Your task to perform on an android device: Search for "acer nitro" on ebay, select the first entry, and add it to the cart. Image 0: 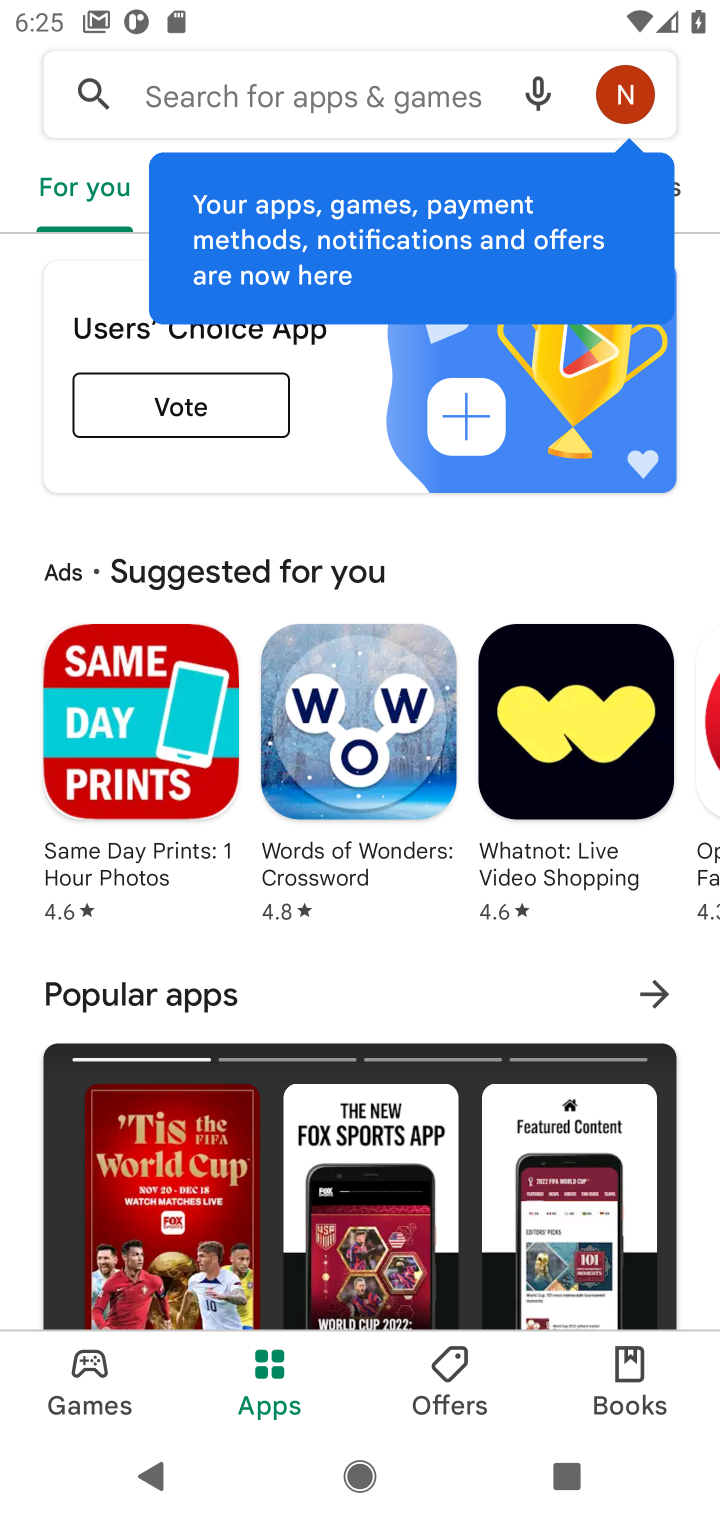
Step 0: press home button
Your task to perform on an android device: Search for "acer nitro" on ebay, select the first entry, and add it to the cart. Image 1: 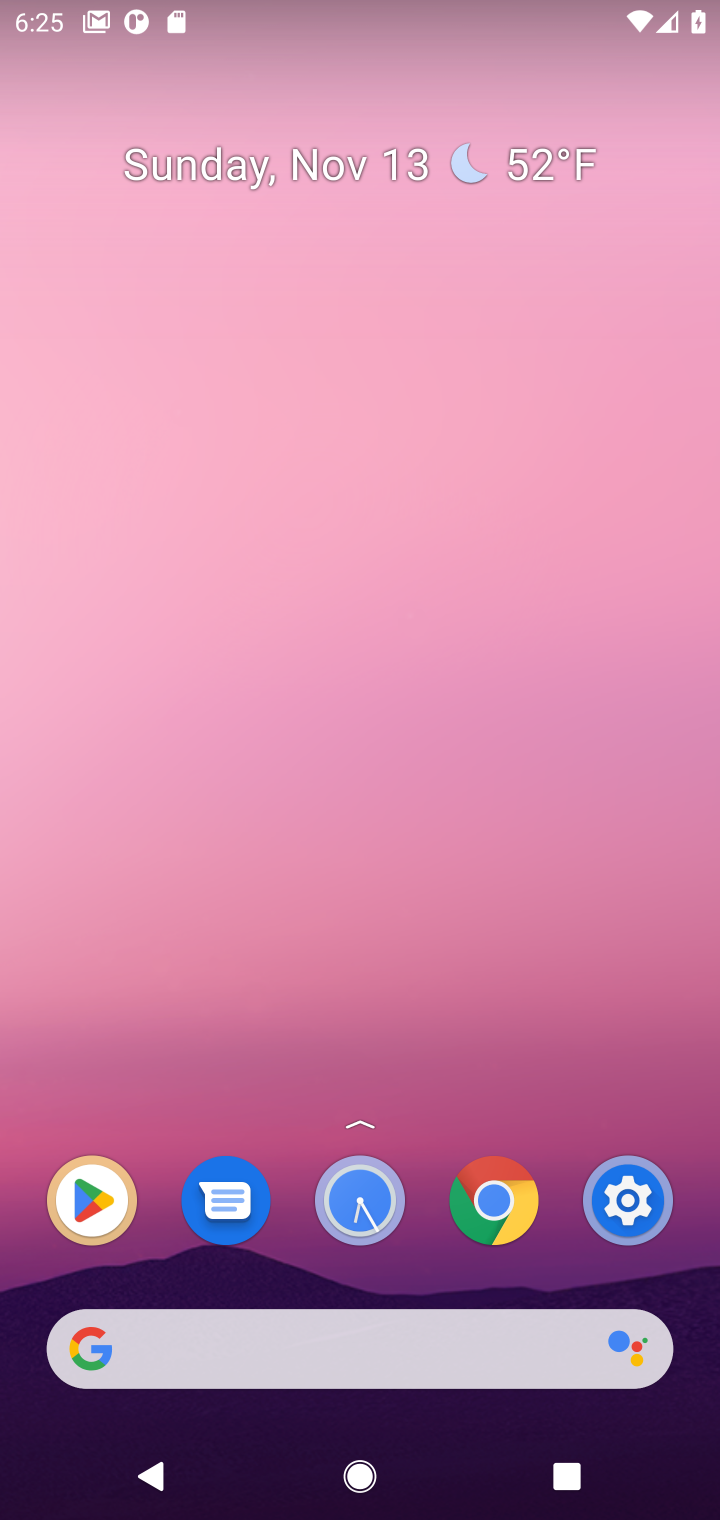
Step 1: click (504, 1206)
Your task to perform on an android device: Search for "acer nitro" on ebay, select the first entry, and add it to the cart. Image 2: 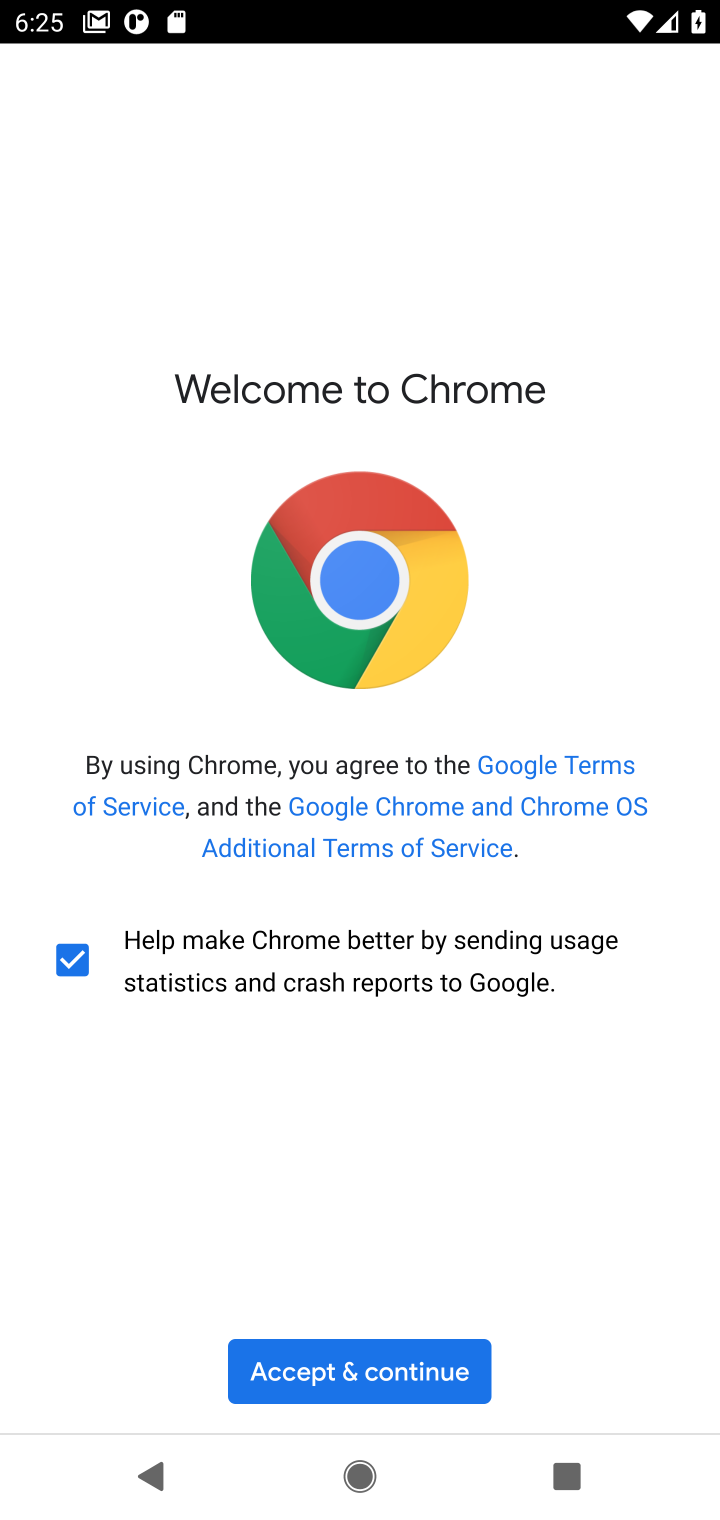
Step 2: click (370, 1375)
Your task to perform on an android device: Search for "acer nitro" on ebay, select the first entry, and add it to the cart. Image 3: 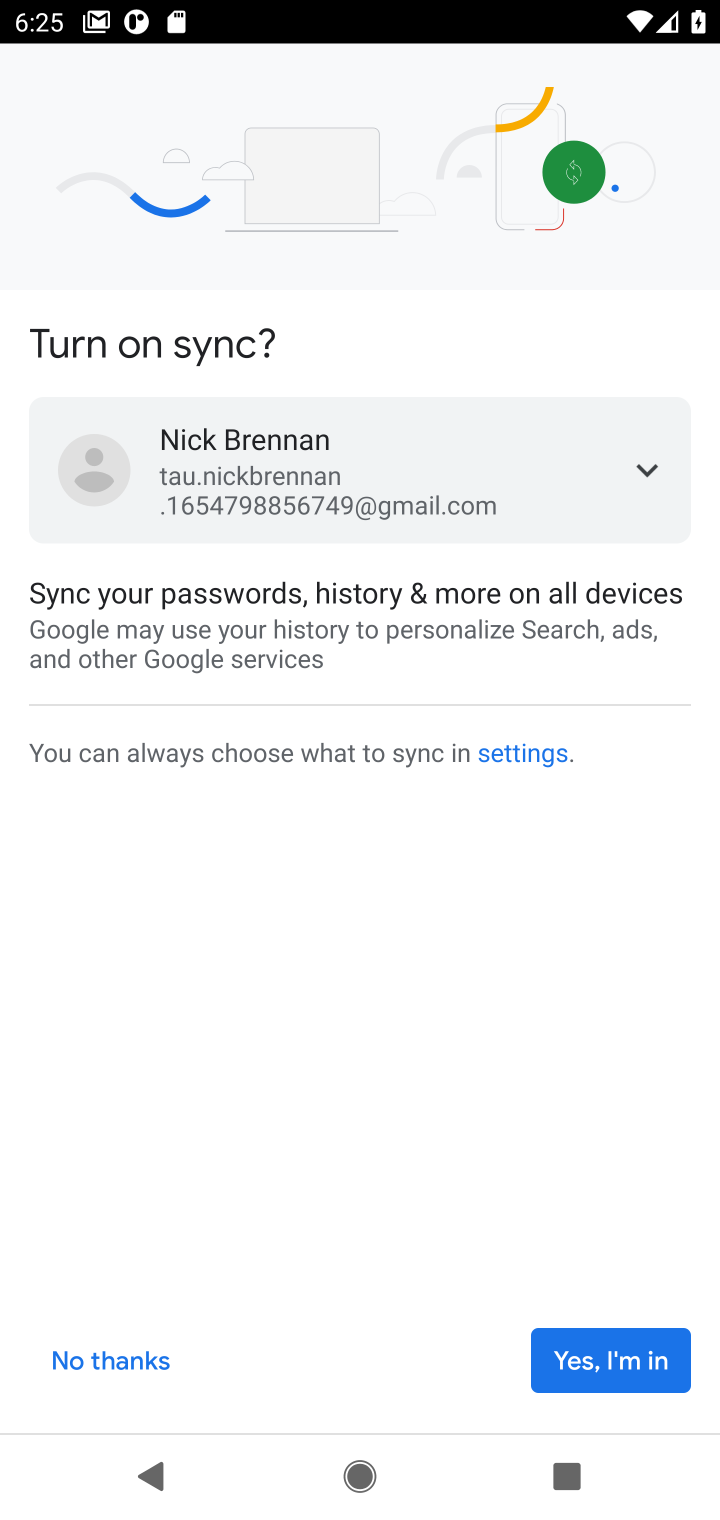
Step 3: click (584, 1381)
Your task to perform on an android device: Search for "acer nitro" on ebay, select the first entry, and add it to the cart. Image 4: 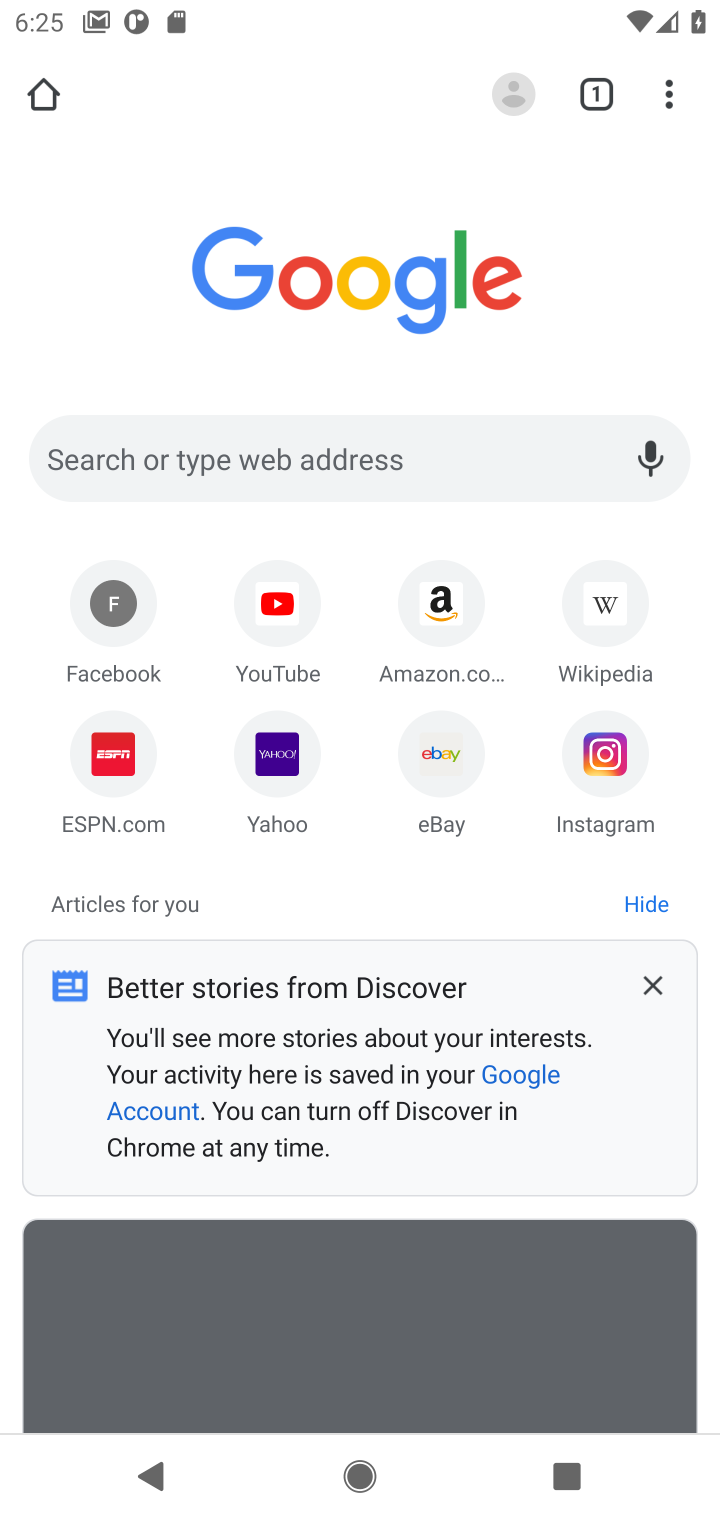
Step 4: click (451, 747)
Your task to perform on an android device: Search for "acer nitro" on ebay, select the first entry, and add it to the cart. Image 5: 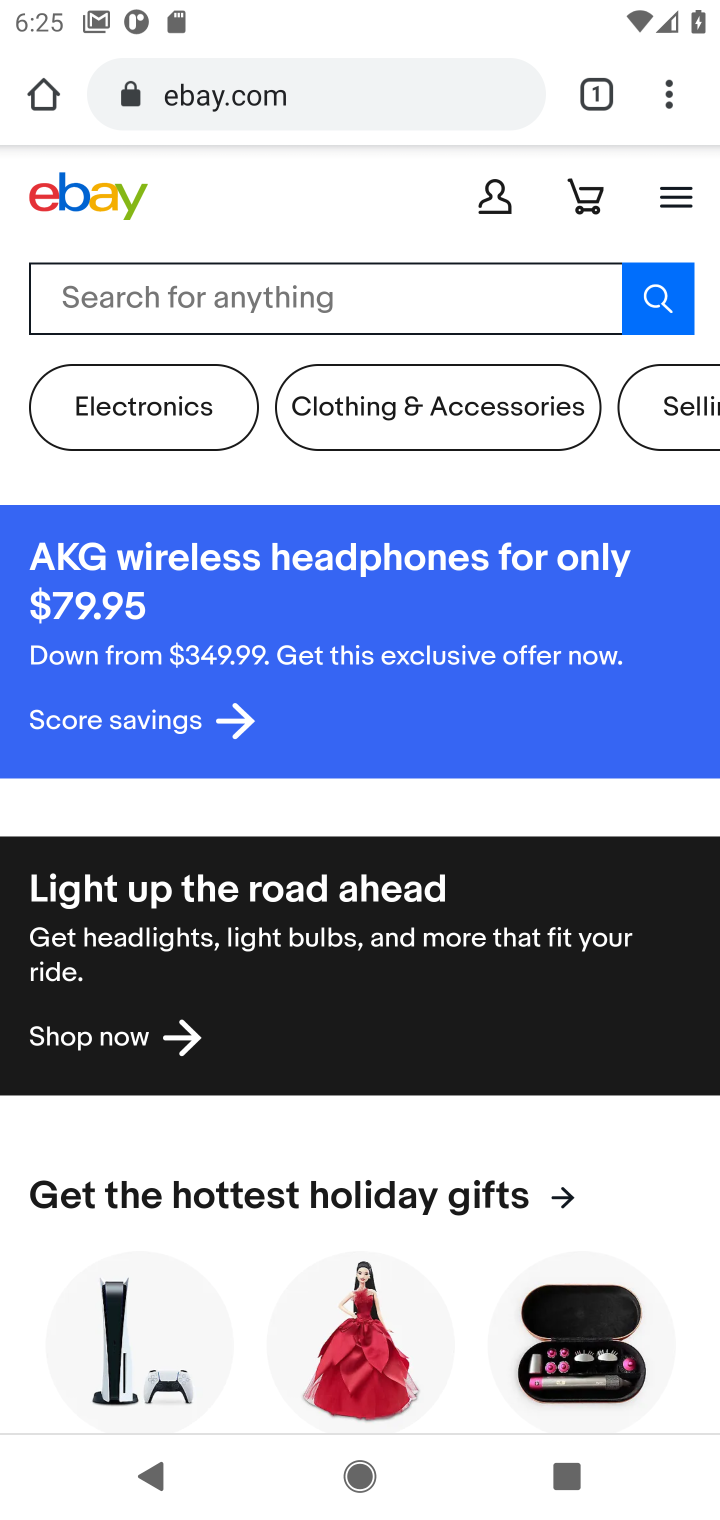
Step 5: click (246, 299)
Your task to perform on an android device: Search for "acer nitro" on ebay, select the first entry, and add it to the cart. Image 6: 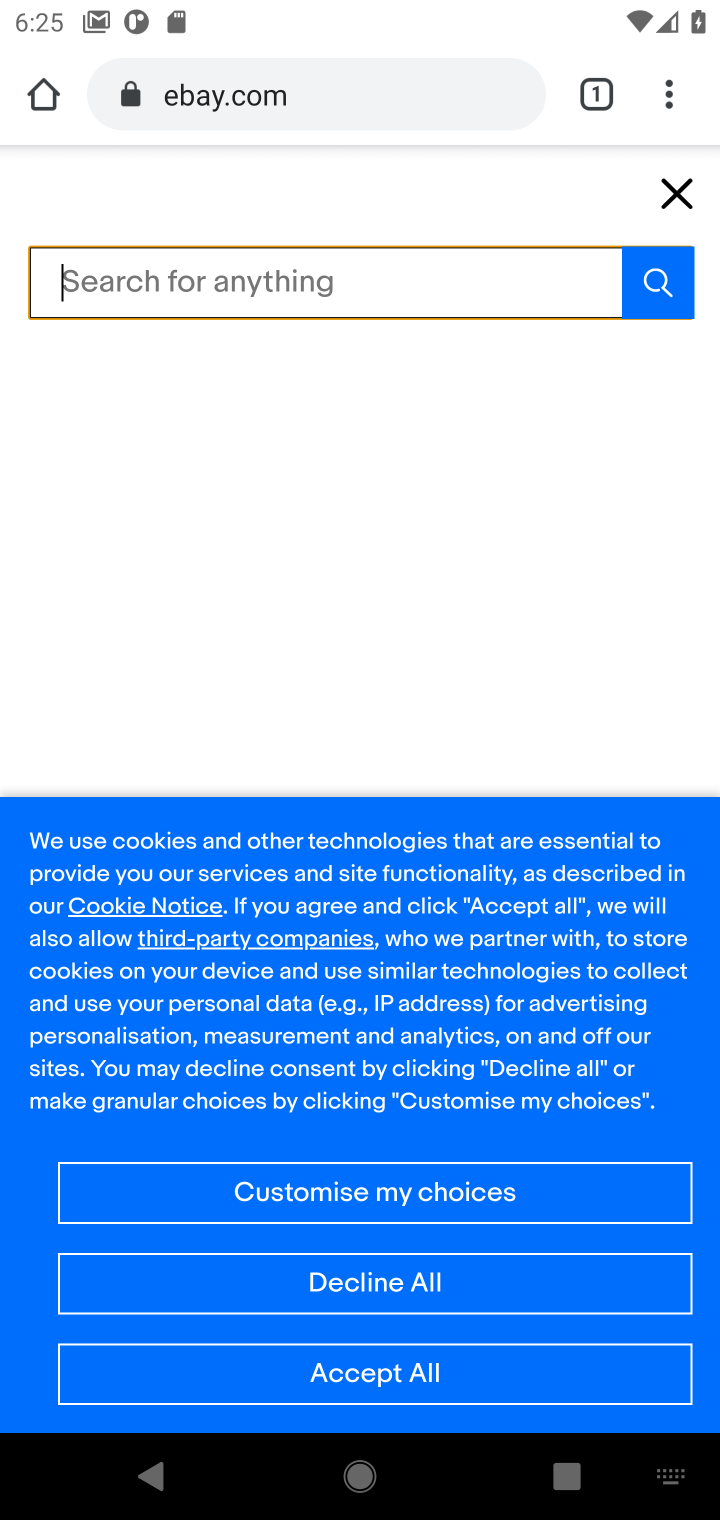
Step 6: type "acer nitro"
Your task to perform on an android device: Search for "acer nitro" on ebay, select the first entry, and add it to the cart. Image 7: 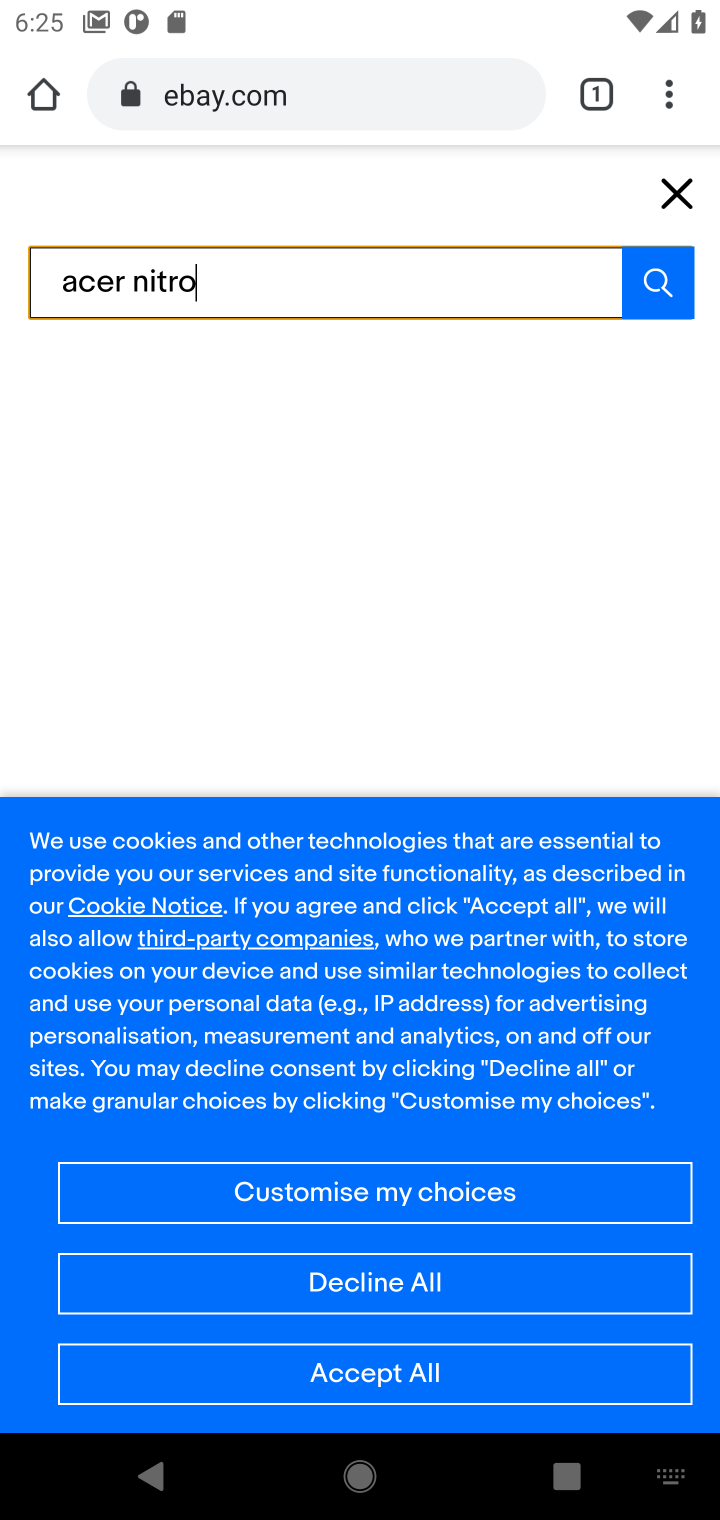
Step 7: click (320, 1291)
Your task to perform on an android device: Search for "acer nitro" on ebay, select the first entry, and add it to the cart. Image 8: 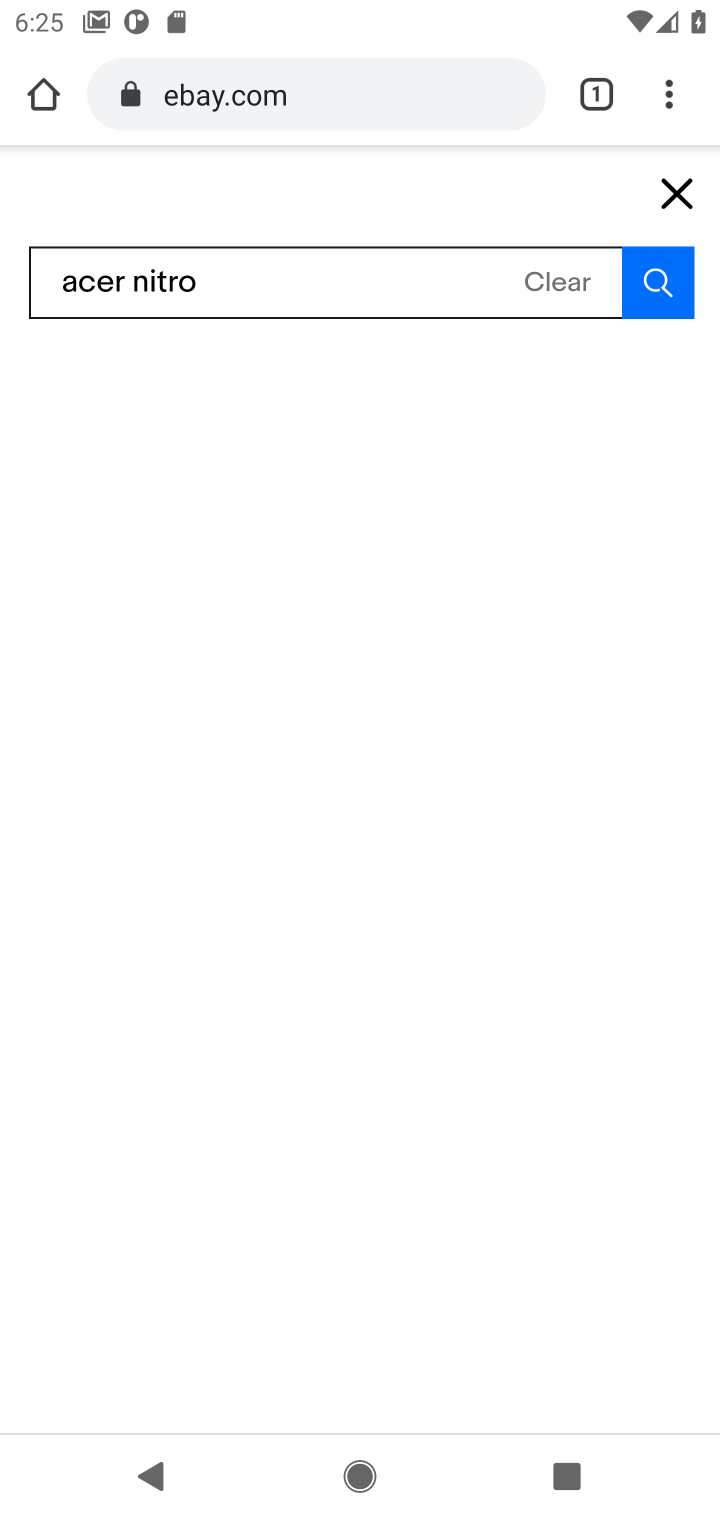
Step 8: click (662, 281)
Your task to perform on an android device: Search for "acer nitro" on ebay, select the first entry, and add it to the cart. Image 9: 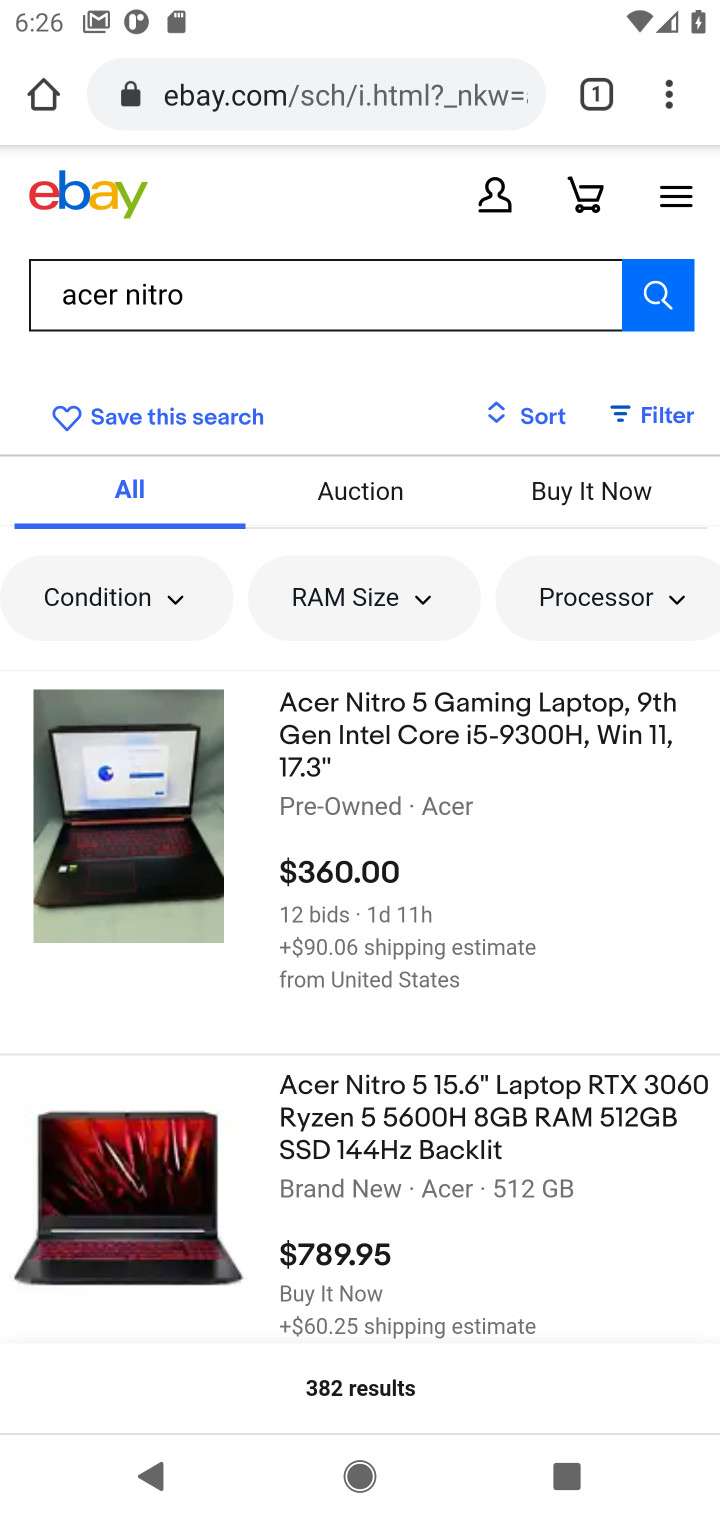
Step 9: click (418, 694)
Your task to perform on an android device: Search for "acer nitro" on ebay, select the first entry, and add it to the cart. Image 10: 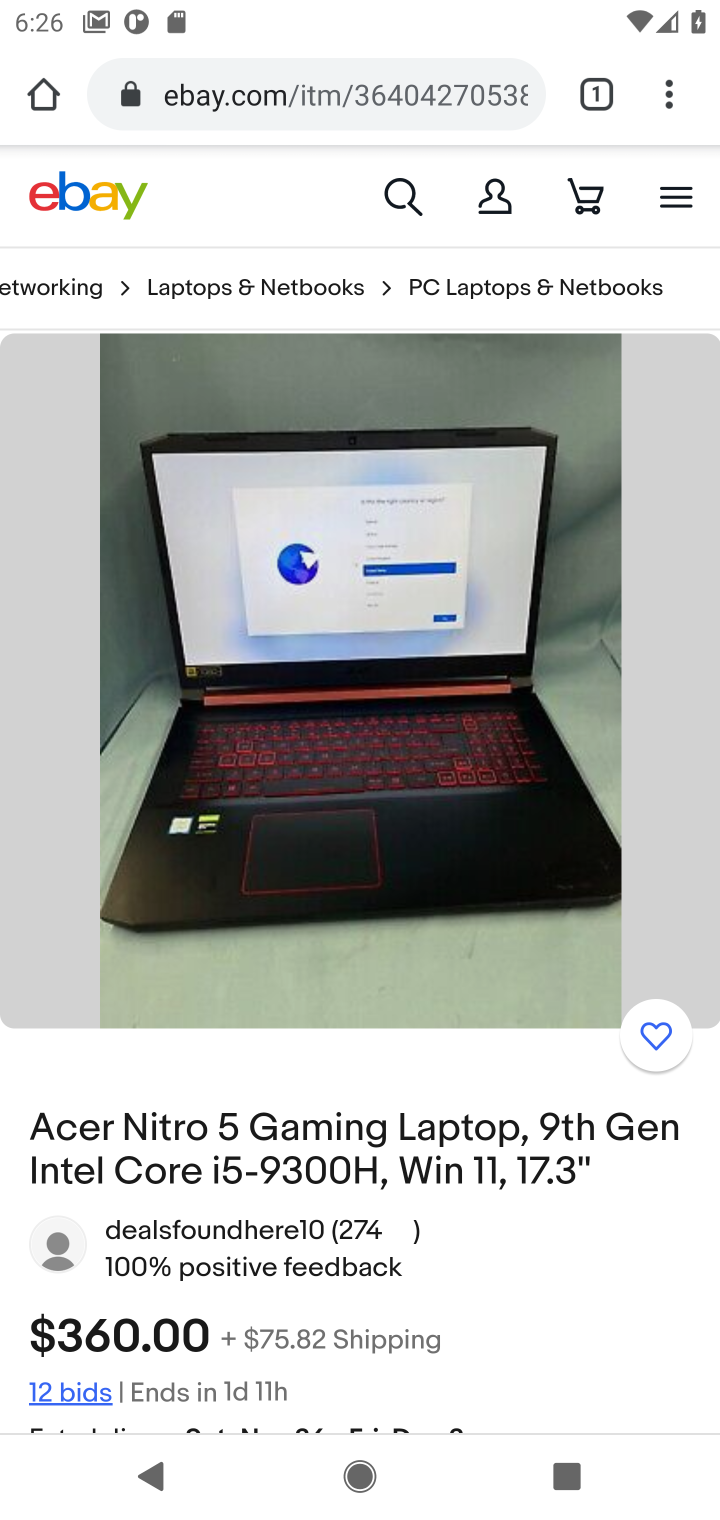
Step 10: drag from (566, 1354) to (595, 443)
Your task to perform on an android device: Search for "acer nitro" on ebay, select the first entry, and add it to the cart. Image 11: 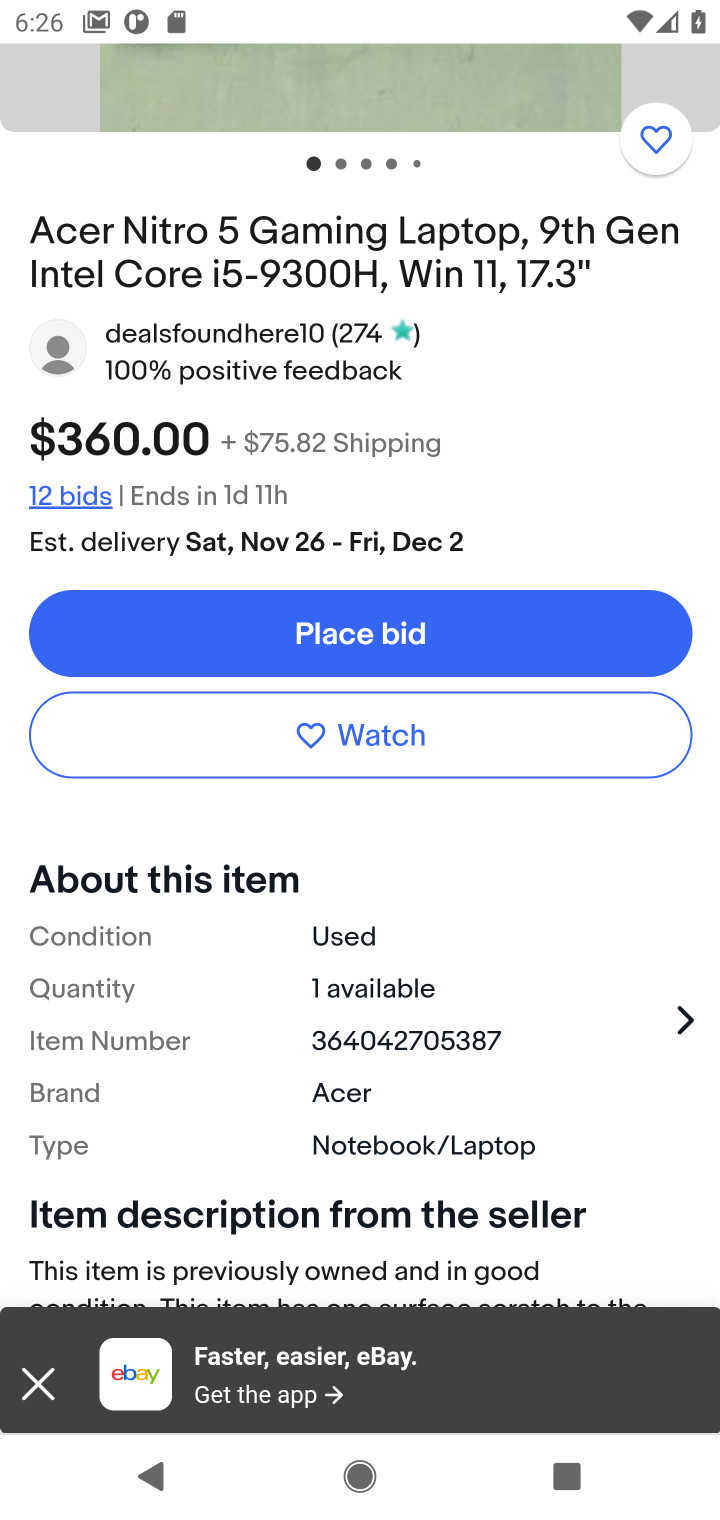
Step 11: press back button
Your task to perform on an android device: Search for "acer nitro" on ebay, select the first entry, and add it to the cart. Image 12: 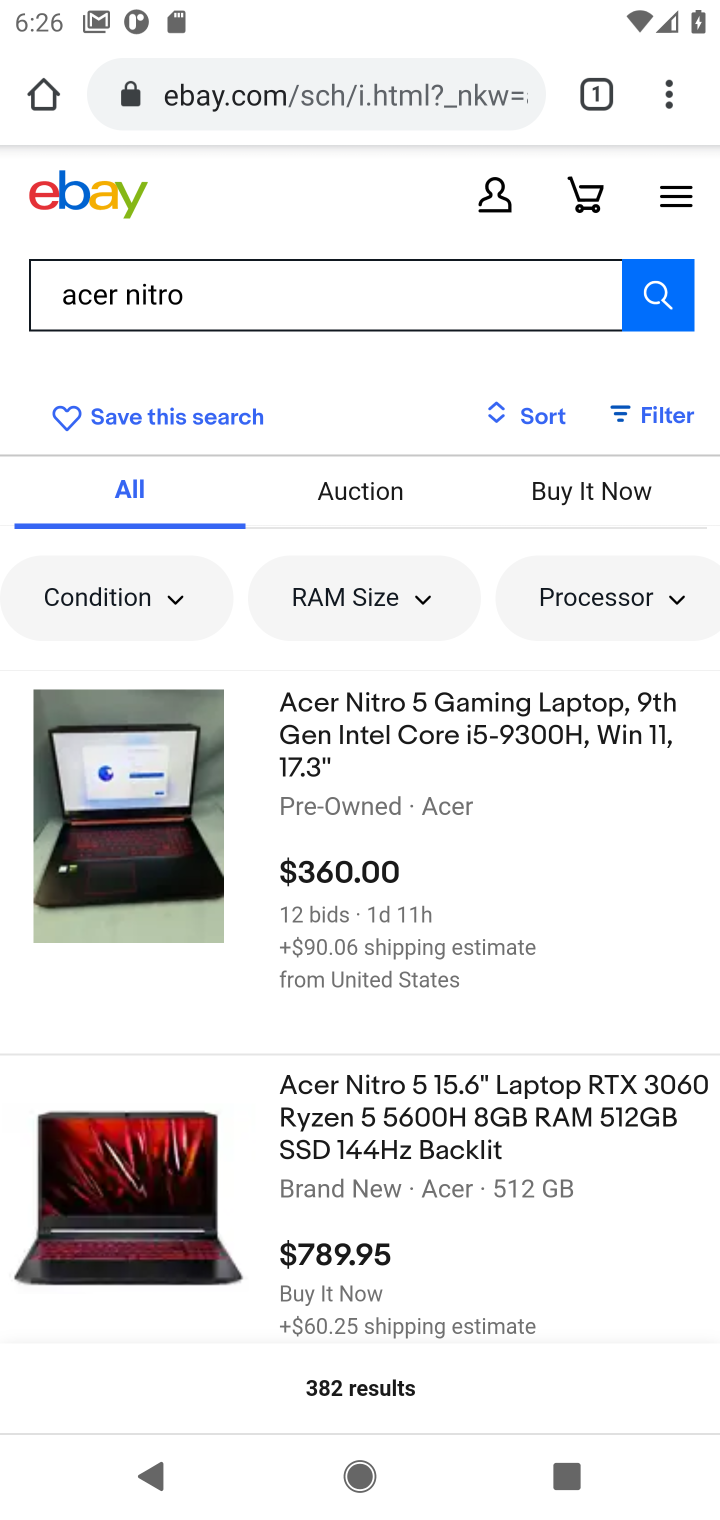
Step 12: click (642, 1097)
Your task to perform on an android device: Search for "acer nitro" on ebay, select the first entry, and add it to the cart. Image 13: 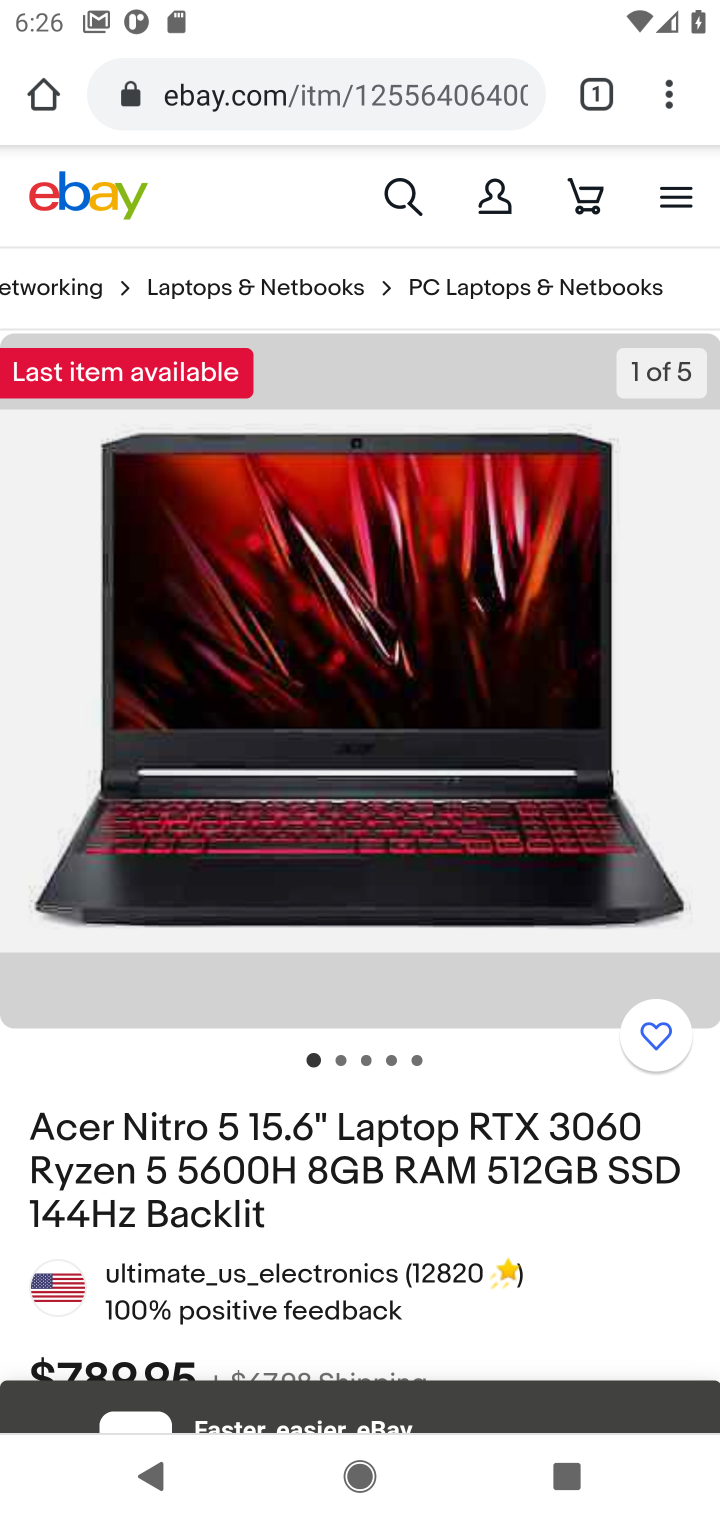
Step 13: drag from (532, 1390) to (572, 811)
Your task to perform on an android device: Search for "acer nitro" on ebay, select the first entry, and add it to the cart. Image 14: 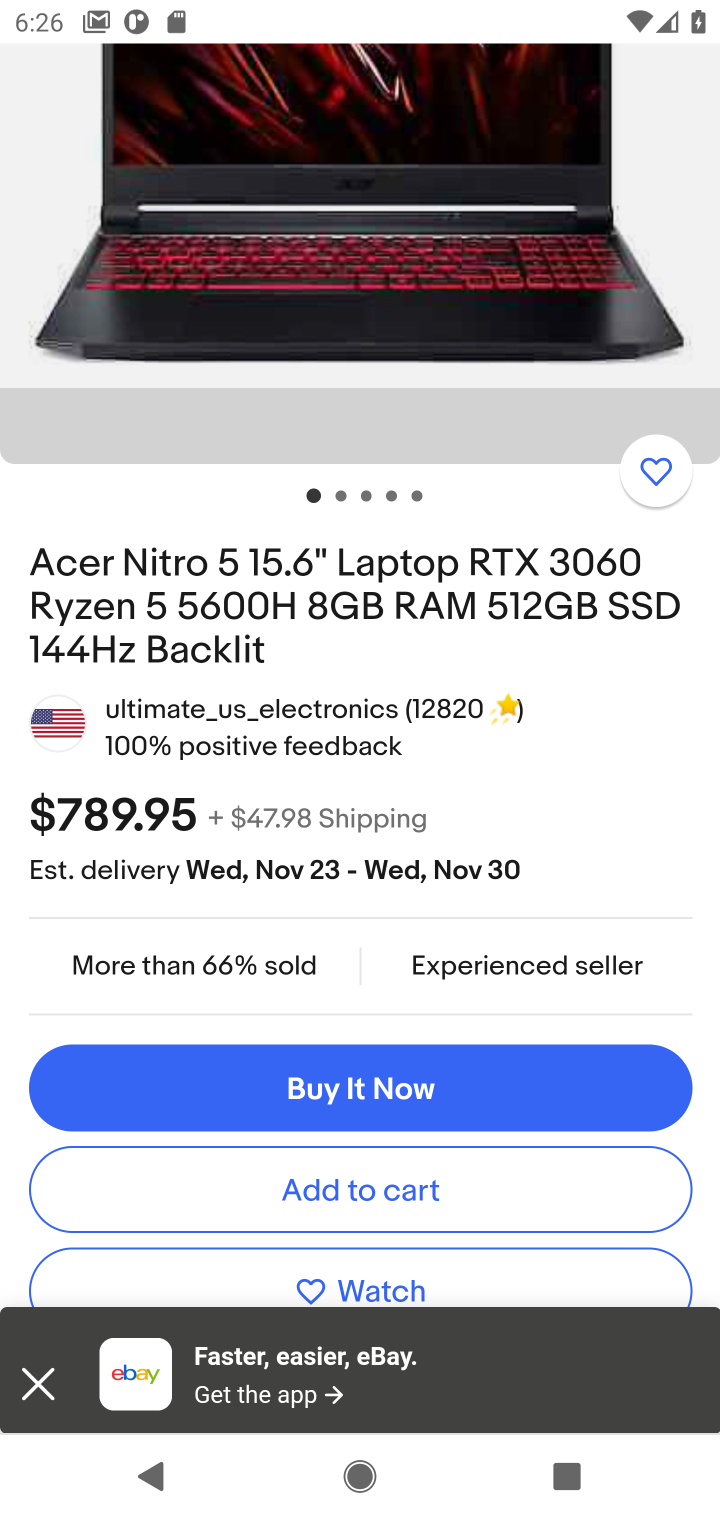
Step 14: click (37, 1394)
Your task to perform on an android device: Search for "acer nitro" on ebay, select the first entry, and add it to the cart. Image 15: 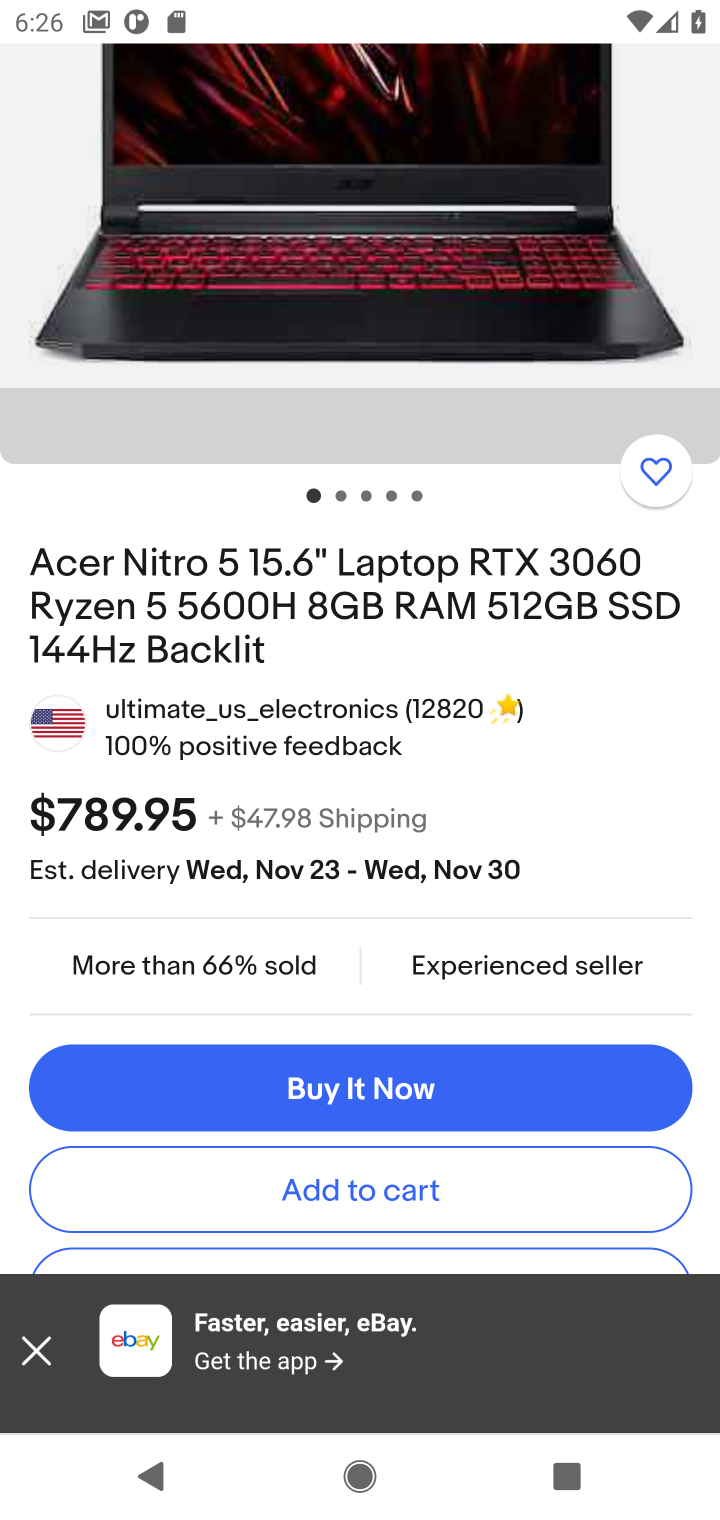
Step 15: click (446, 1189)
Your task to perform on an android device: Search for "acer nitro" on ebay, select the first entry, and add it to the cart. Image 16: 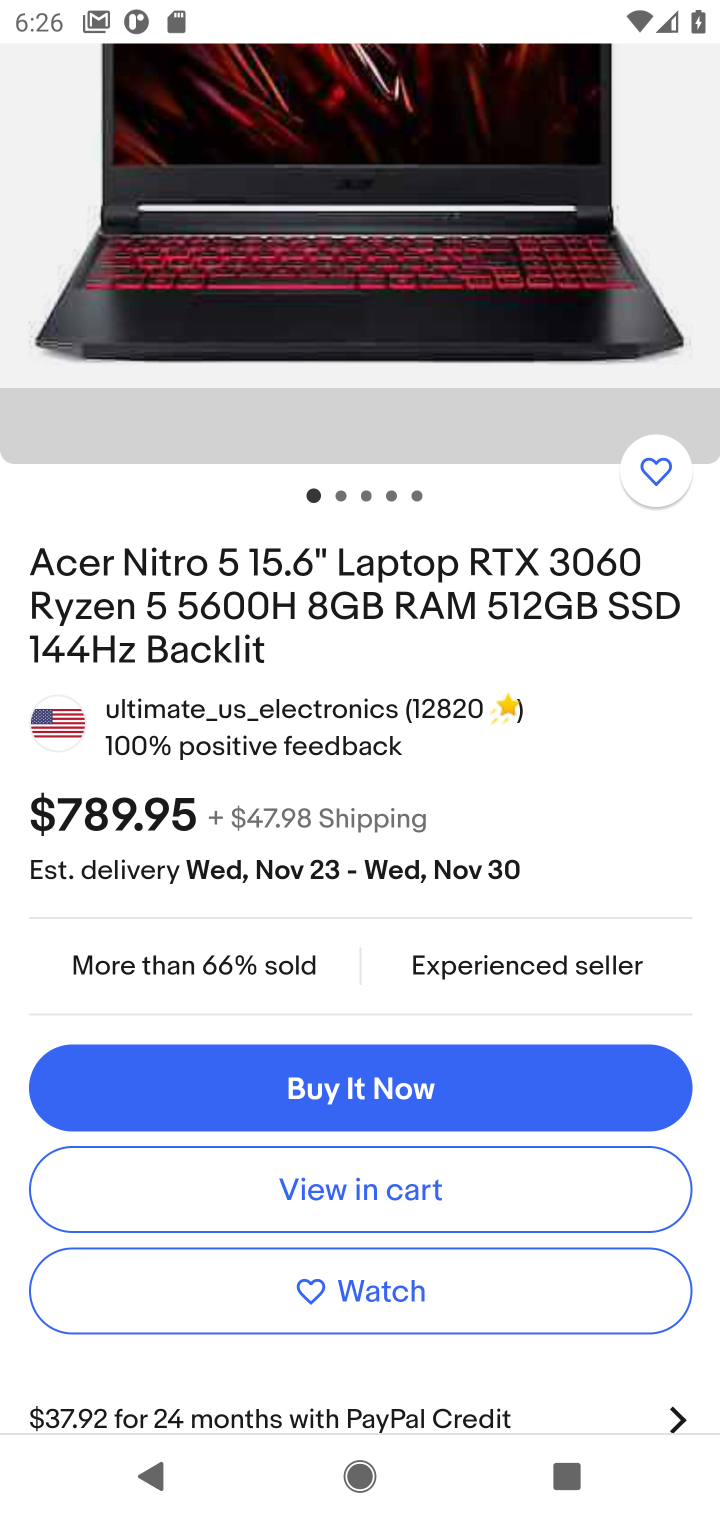
Step 16: task complete